Your task to perform on an android device: open wifi settings Image 0: 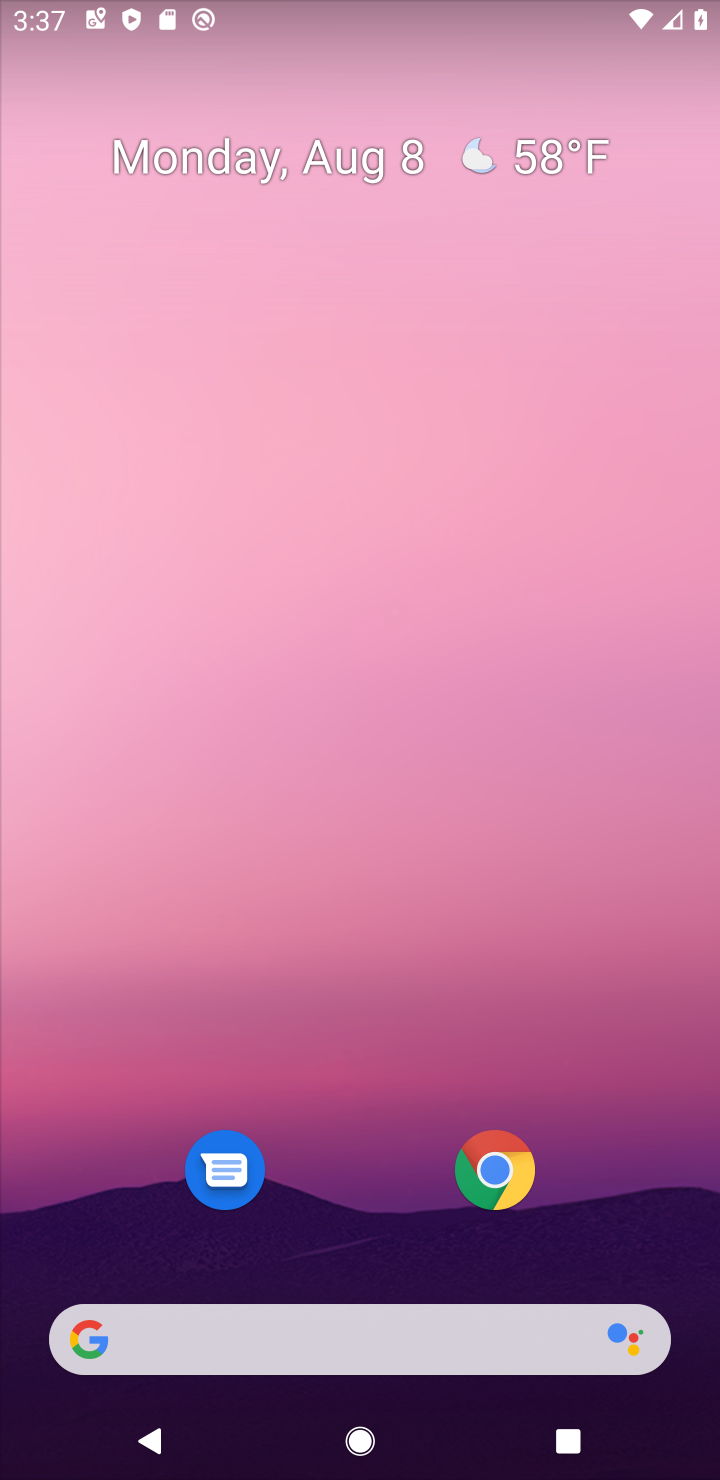
Step 0: drag from (325, 1159) to (327, 312)
Your task to perform on an android device: open wifi settings Image 1: 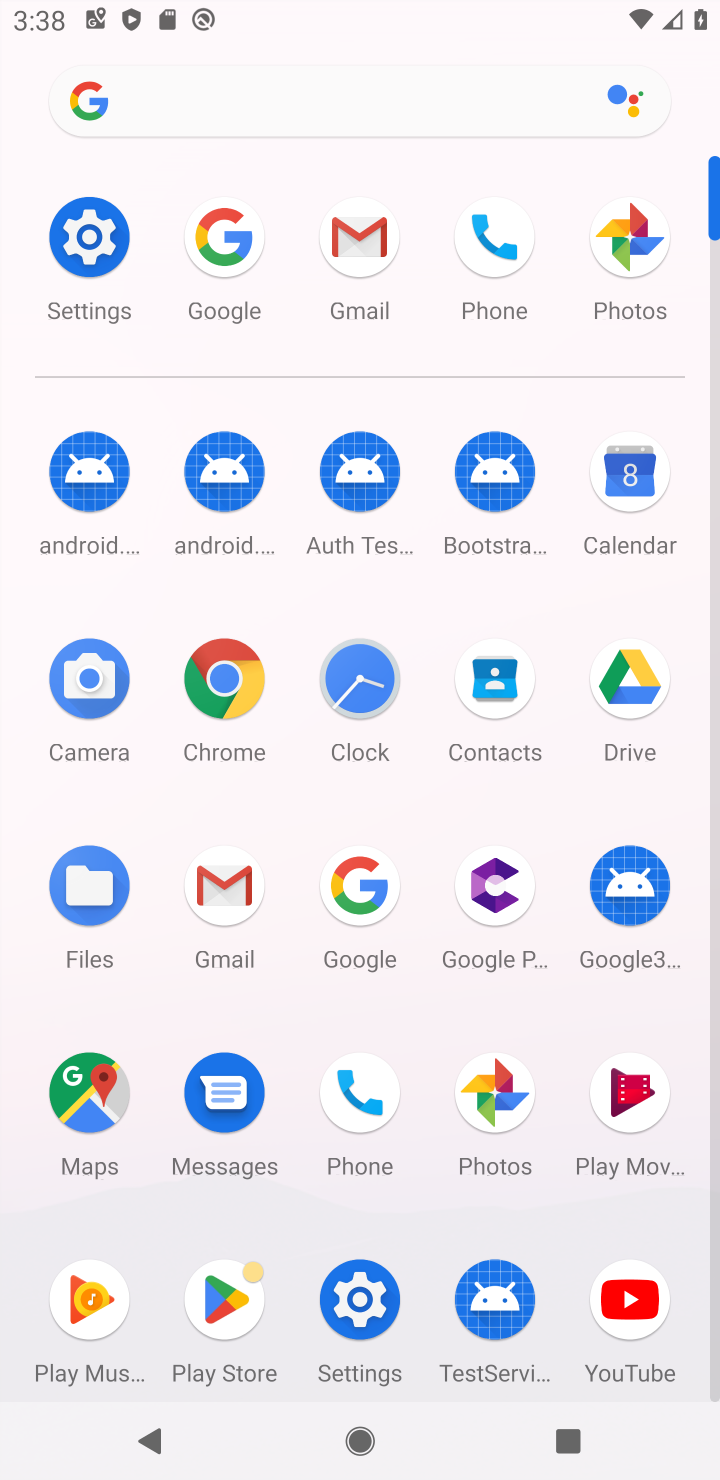
Step 1: click (111, 270)
Your task to perform on an android device: open wifi settings Image 2: 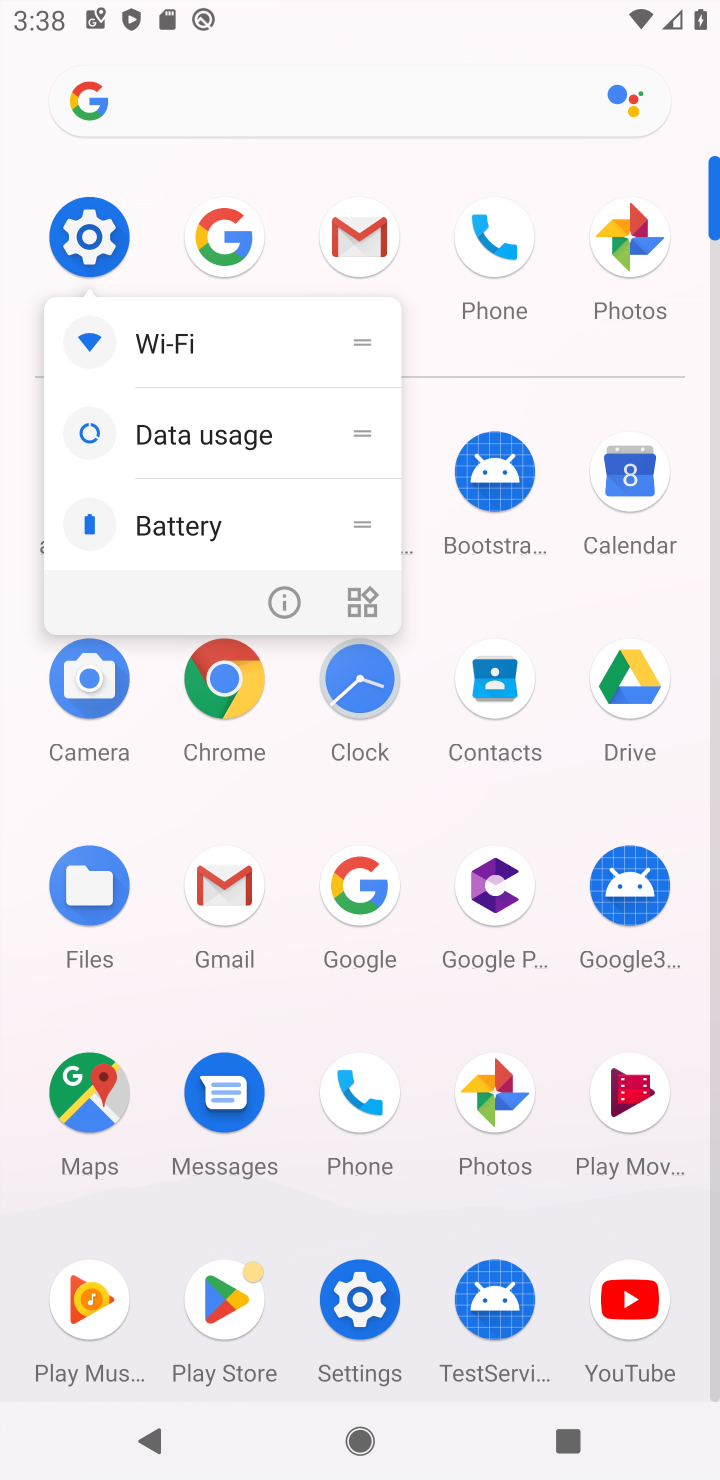
Step 2: click (103, 241)
Your task to perform on an android device: open wifi settings Image 3: 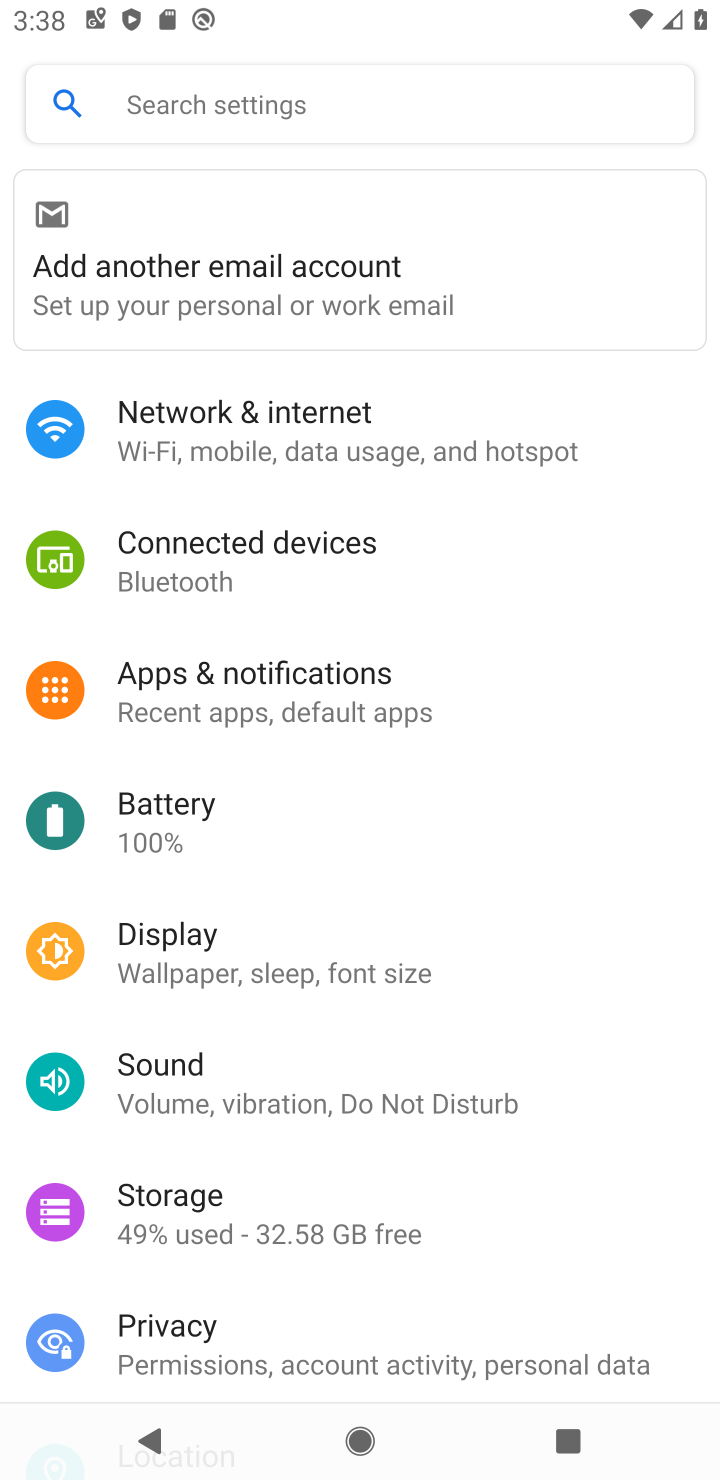
Step 3: click (226, 412)
Your task to perform on an android device: open wifi settings Image 4: 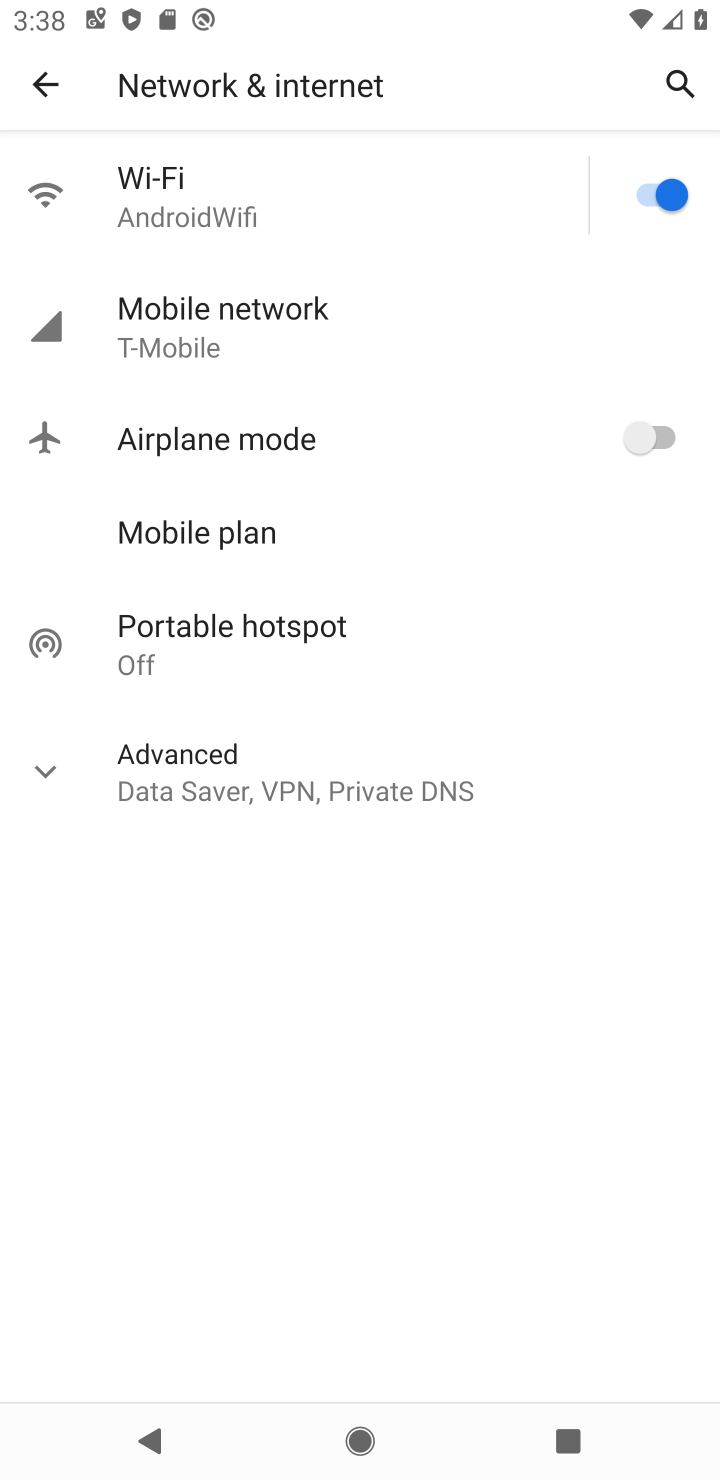
Step 4: click (281, 207)
Your task to perform on an android device: open wifi settings Image 5: 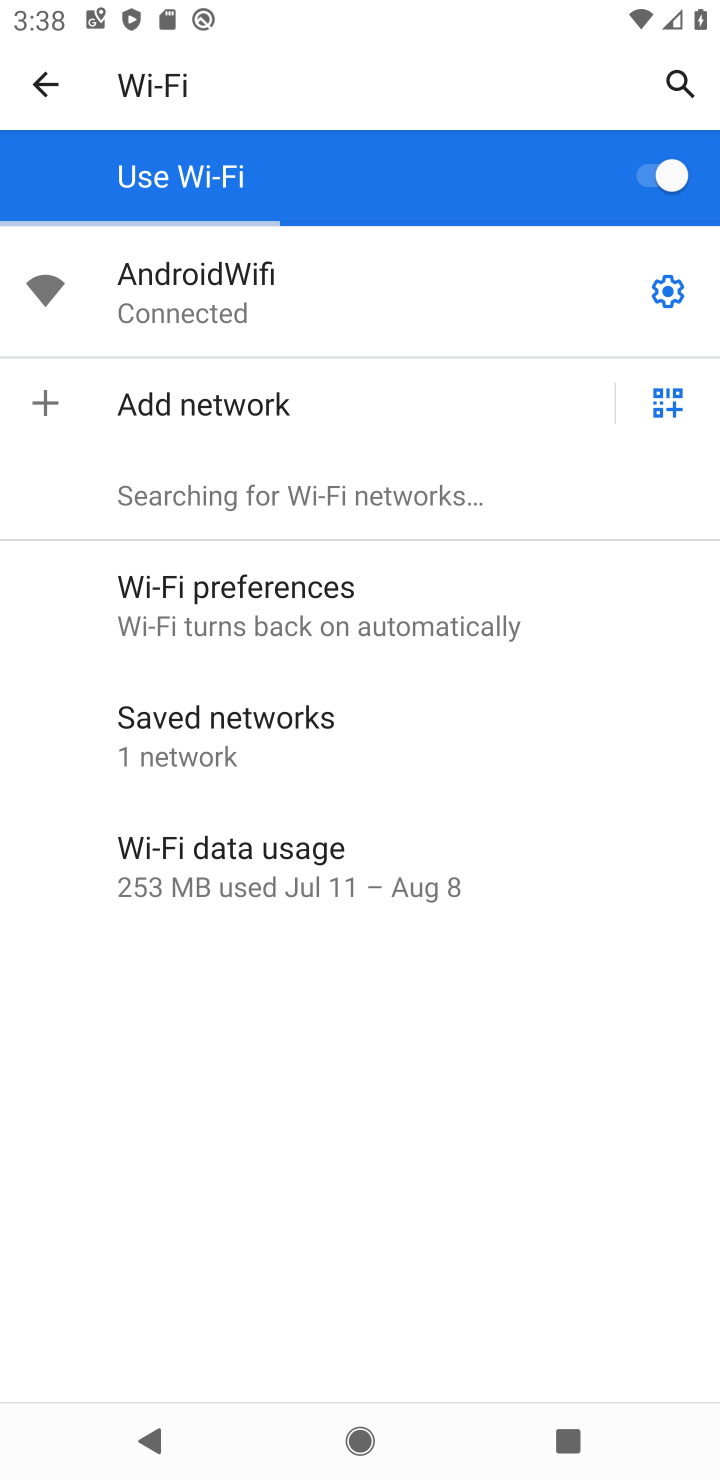
Step 5: task complete